Your task to perform on an android device: Open the calendar app, open the side menu, and click the "Day" option Image 0: 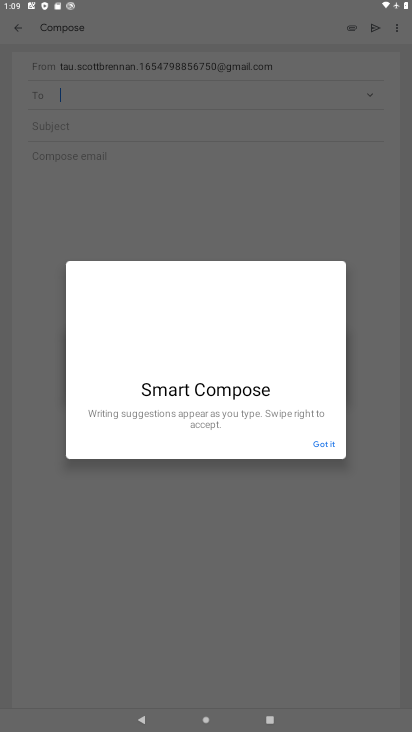
Step 0: drag from (22, 716) to (124, 352)
Your task to perform on an android device: Open the calendar app, open the side menu, and click the "Day" option Image 1: 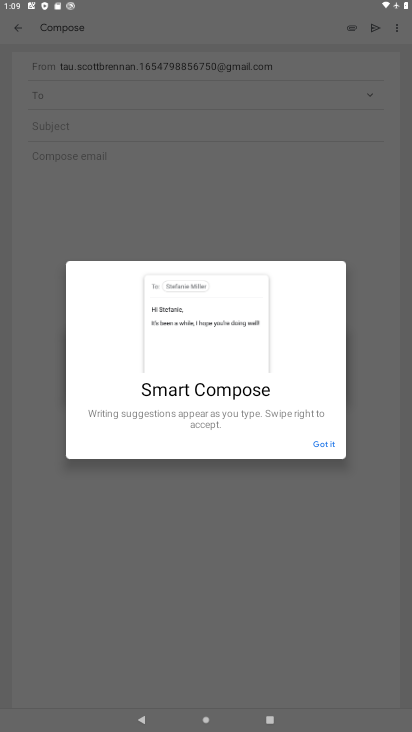
Step 1: press home button
Your task to perform on an android device: Open the calendar app, open the side menu, and click the "Day" option Image 2: 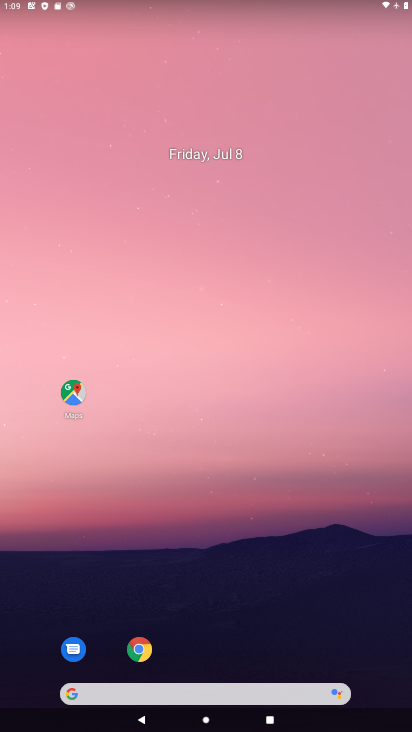
Step 2: drag from (19, 705) to (317, 49)
Your task to perform on an android device: Open the calendar app, open the side menu, and click the "Day" option Image 3: 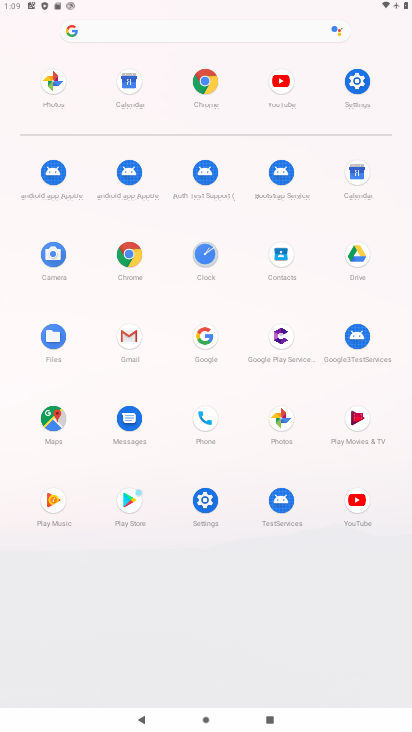
Step 3: click (361, 163)
Your task to perform on an android device: Open the calendar app, open the side menu, and click the "Day" option Image 4: 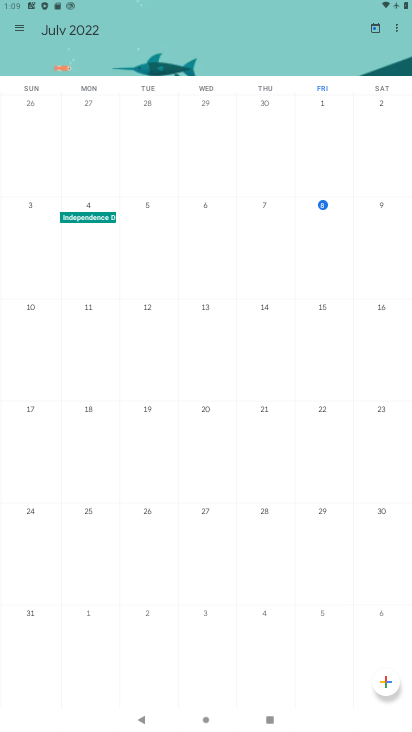
Step 4: click (17, 25)
Your task to perform on an android device: Open the calendar app, open the side menu, and click the "Day" option Image 5: 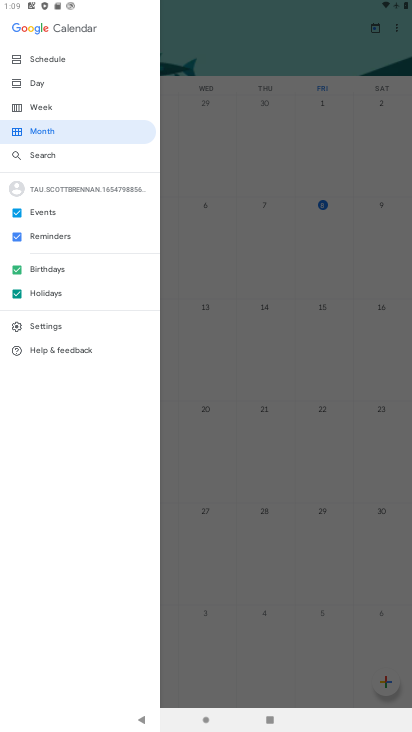
Step 5: click (36, 86)
Your task to perform on an android device: Open the calendar app, open the side menu, and click the "Day" option Image 6: 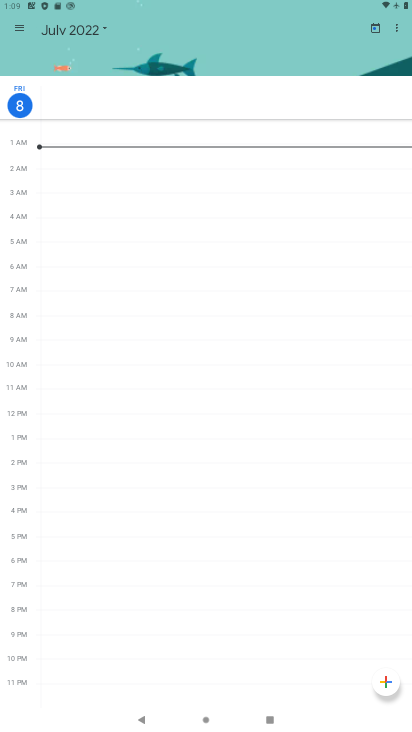
Step 6: task complete